Your task to perform on an android device: turn off smart reply in the gmail app Image 0: 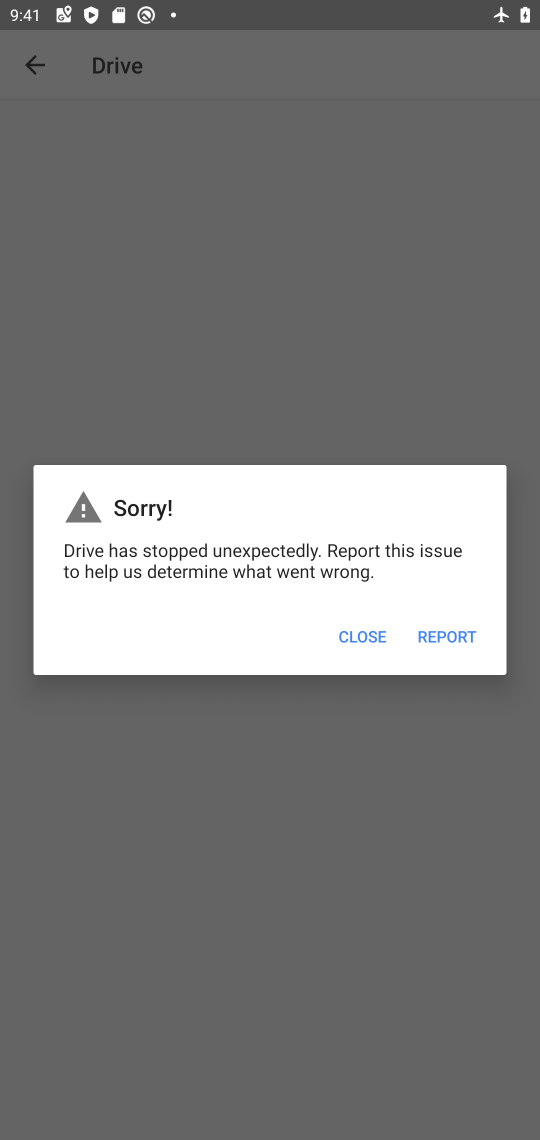
Step 0: press home button
Your task to perform on an android device: turn off smart reply in the gmail app Image 1: 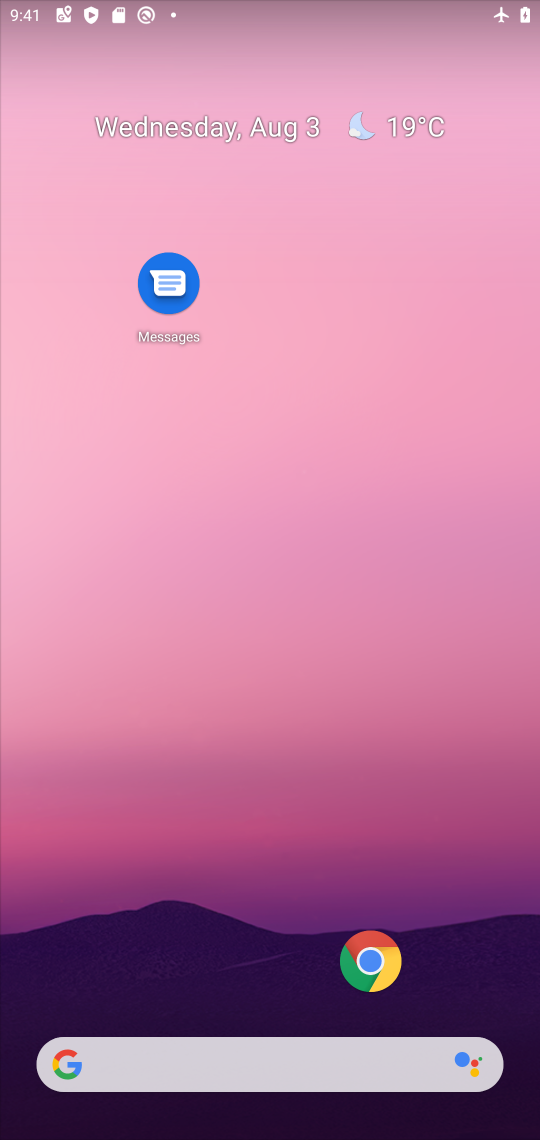
Step 1: drag from (294, 1018) to (139, 132)
Your task to perform on an android device: turn off smart reply in the gmail app Image 2: 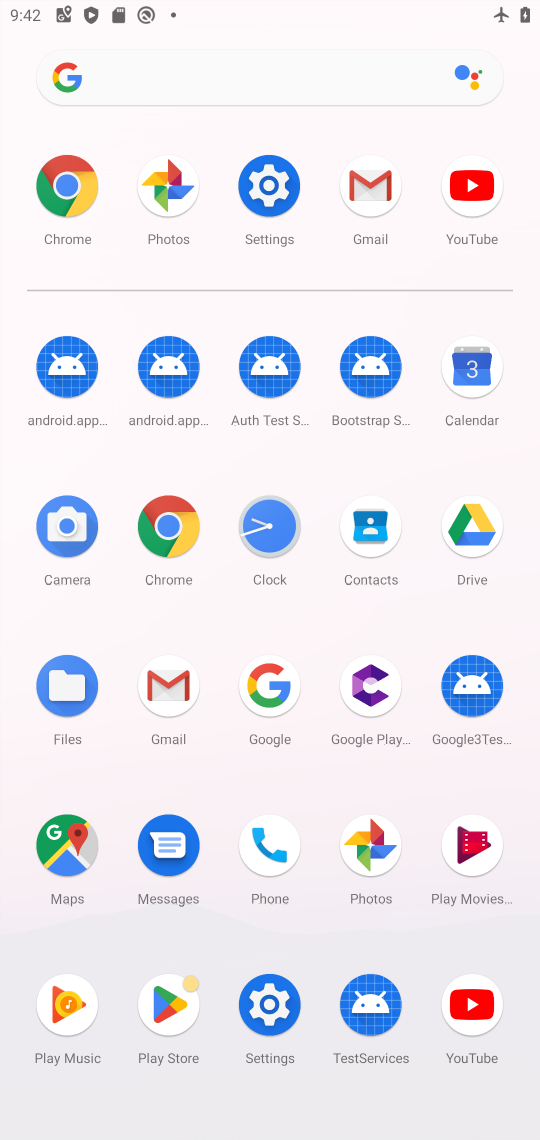
Step 2: click (165, 673)
Your task to perform on an android device: turn off smart reply in the gmail app Image 3: 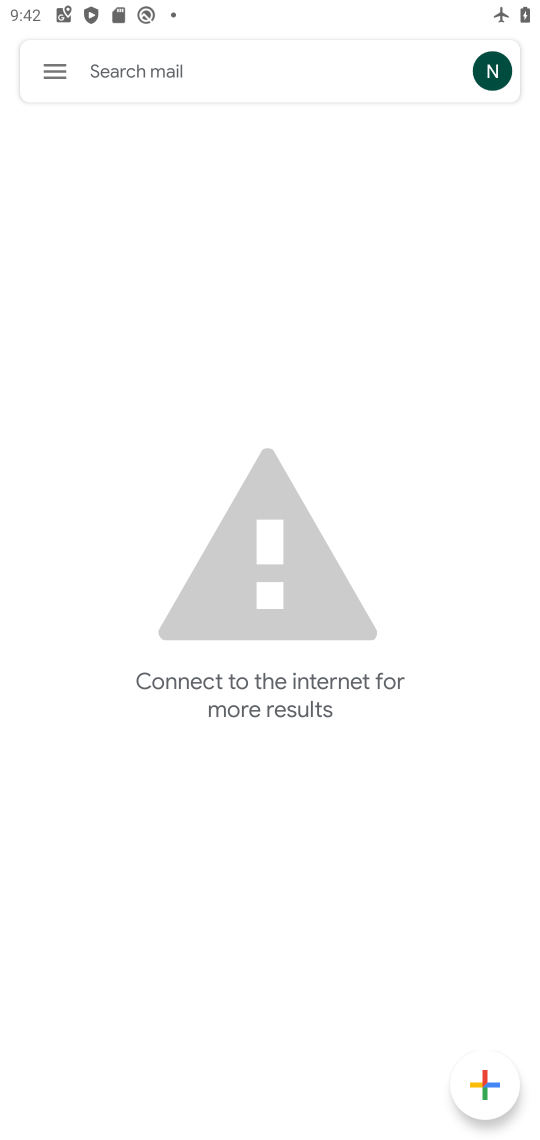
Step 3: click (68, 83)
Your task to perform on an android device: turn off smart reply in the gmail app Image 4: 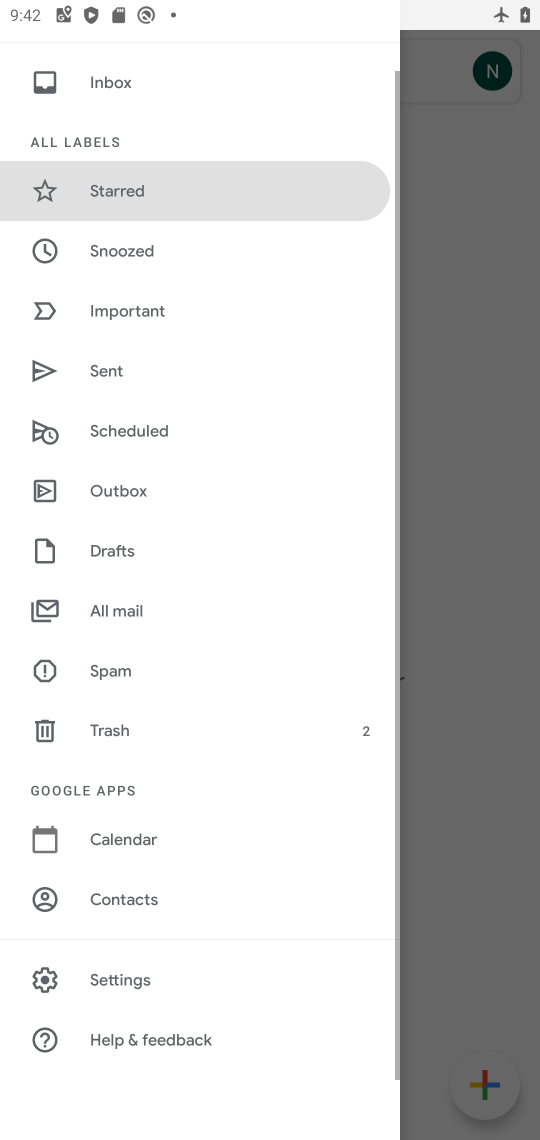
Step 4: click (118, 976)
Your task to perform on an android device: turn off smart reply in the gmail app Image 5: 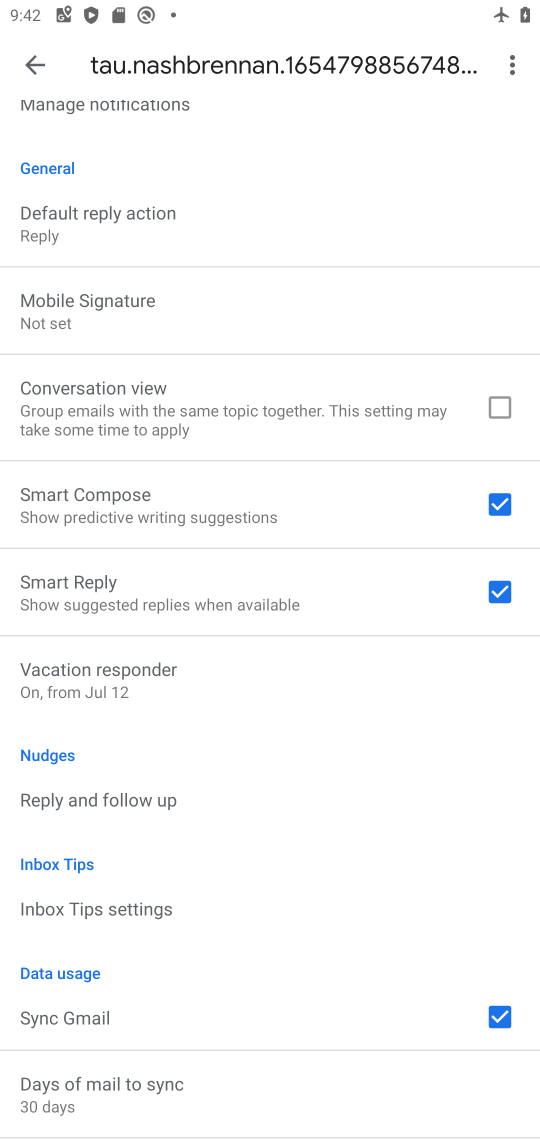
Step 5: click (183, 615)
Your task to perform on an android device: turn off smart reply in the gmail app Image 6: 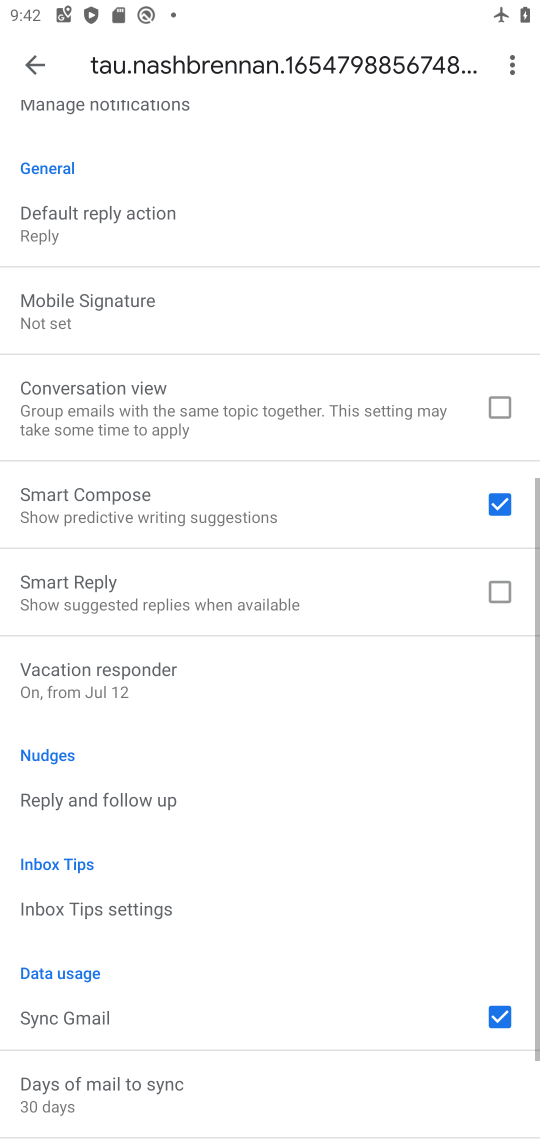
Step 6: task complete